Your task to perform on an android device: Go to eBay Image 0: 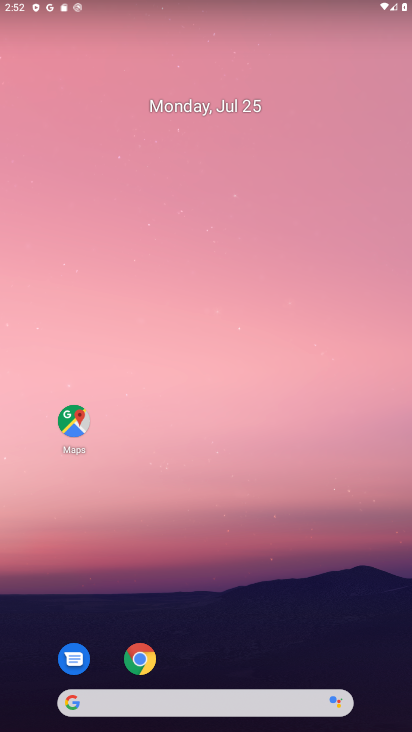
Step 0: drag from (178, 679) to (134, 155)
Your task to perform on an android device: Go to eBay Image 1: 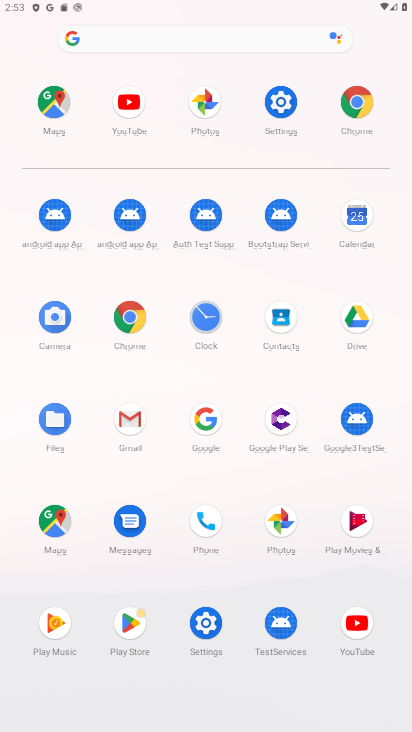
Step 1: click (127, 330)
Your task to perform on an android device: Go to eBay Image 2: 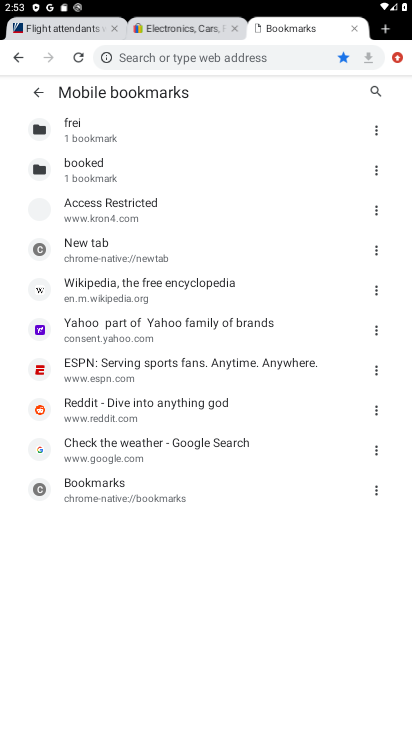
Step 2: click (381, 26)
Your task to perform on an android device: Go to eBay Image 3: 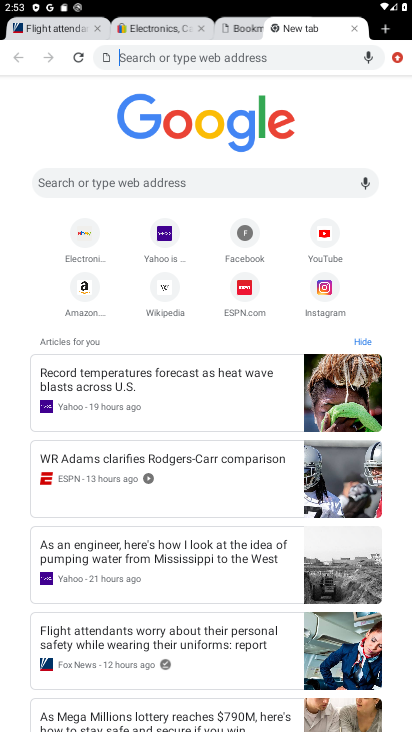
Step 3: click (91, 233)
Your task to perform on an android device: Go to eBay Image 4: 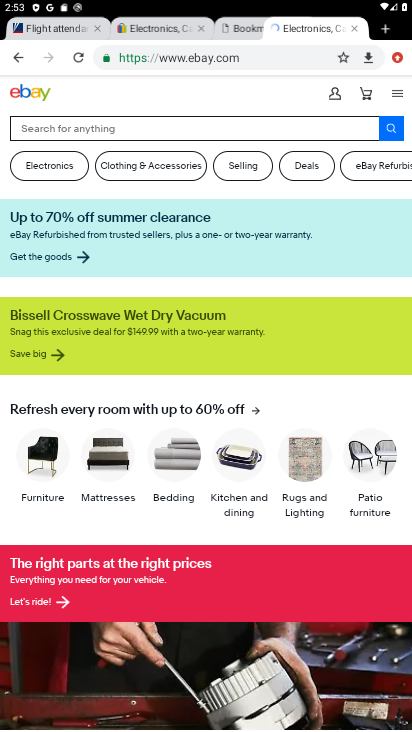
Step 4: task complete